Your task to perform on an android device: Open the Play Movies app and select the watchlist tab. Image 0: 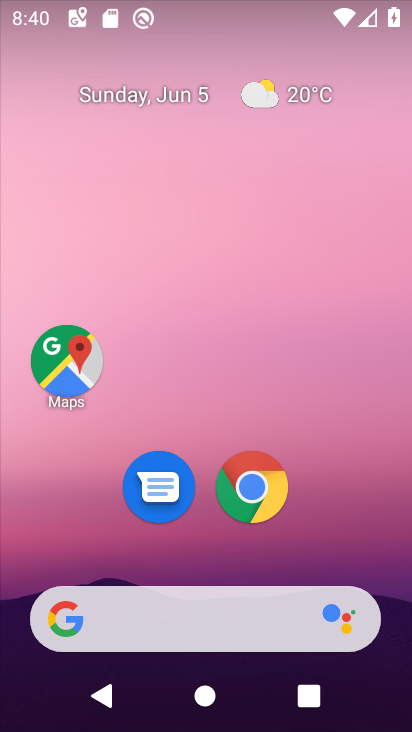
Step 0: drag from (303, 503) to (289, 237)
Your task to perform on an android device: Open the Play Movies app and select the watchlist tab. Image 1: 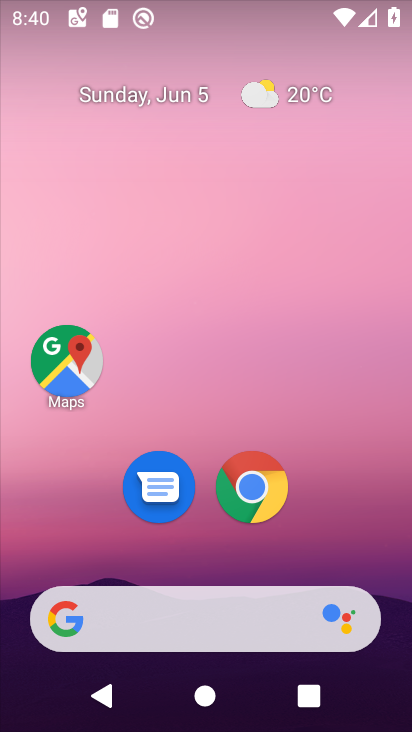
Step 1: drag from (257, 427) to (254, 192)
Your task to perform on an android device: Open the Play Movies app and select the watchlist tab. Image 2: 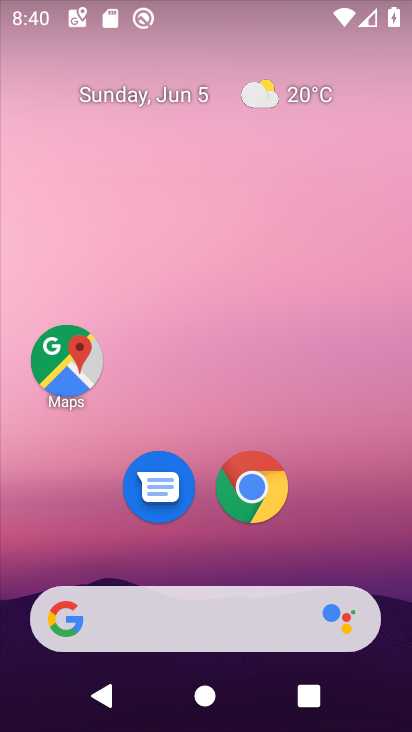
Step 2: drag from (231, 548) to (226, 173)
Your task to perform on an android device: Open the Play Movies app and select the watchlist tab. Image 3: 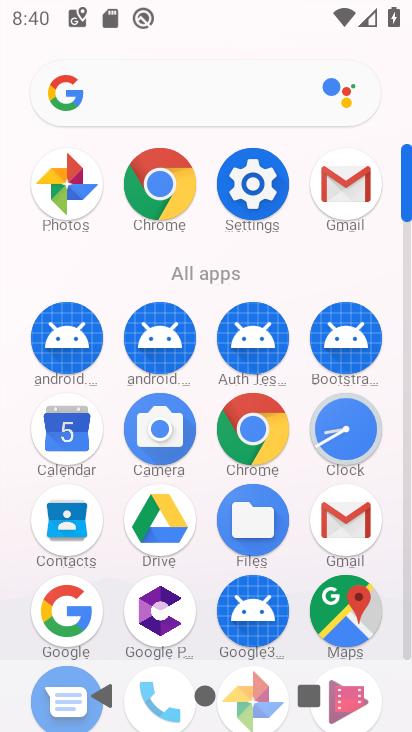
Step 3: drag from (281, 595) to (258, 202)
Your task to perform on an android device: Open the Play Movies app and select the watchlist tab. Image 4: 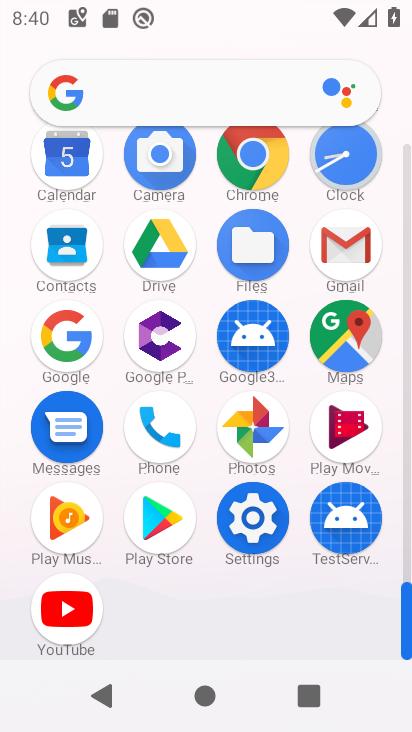
Step 4: click (334, 412)
Your task to perform on an android device: Open the Play Movies app and select the watchlist tab. Image 5: 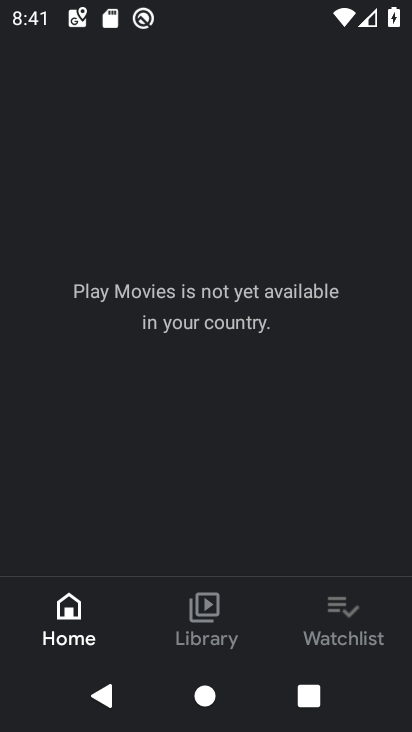
Step 5: click (320, 636)
Your task to perform on an android device: Open the Play Movies app and select the watchlist tab. Image 6: 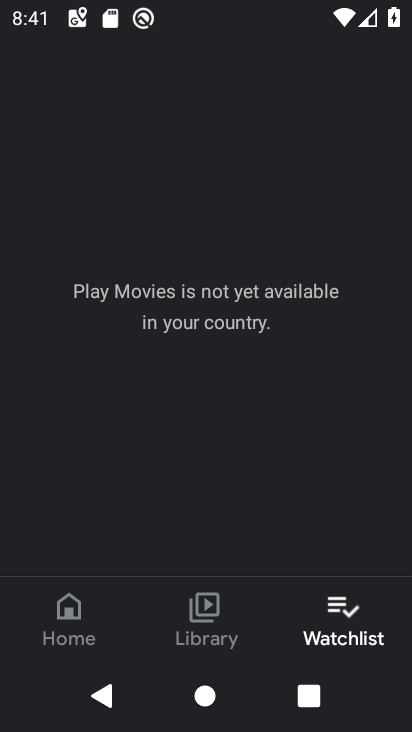
Step 6: task complete